Your task to perform on an android device: Find coffee shops on Maps Image 0: 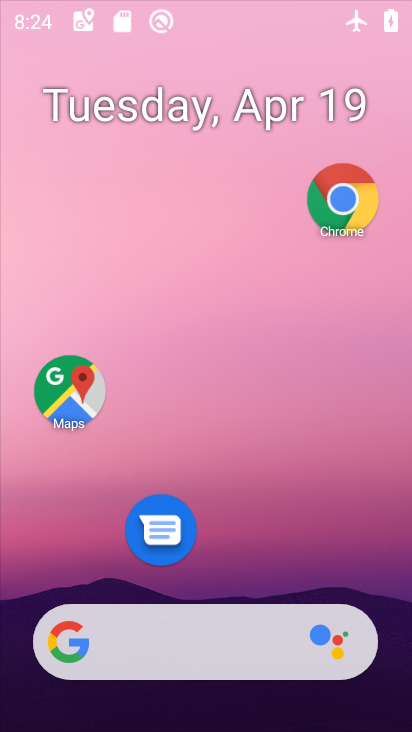
Step 0: click (410, 380)
Your task to perform on an android device: Find coffee shops on Maps Image 1: 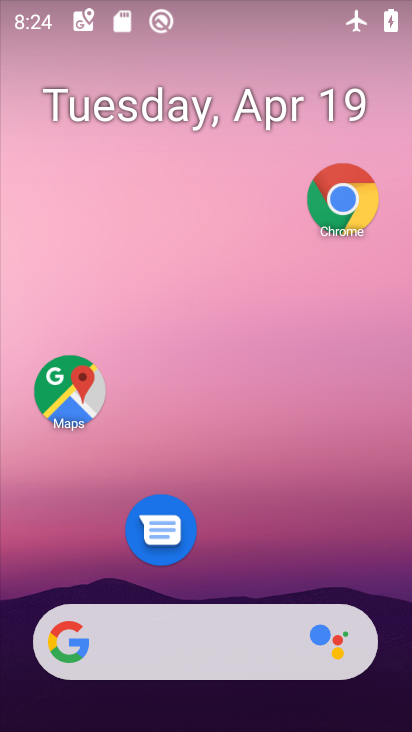
Step 1: drag from (194, 569) to (276, 59)
Your task to perform on an android device: Find coffee shops on Maps Image 2: 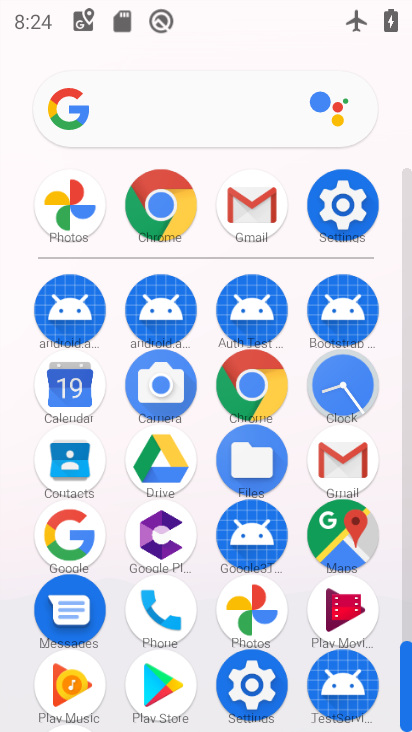
Step 2: click (339, 532)
Your task to perform on an android device: Find coffee shops on Maps Image 3: 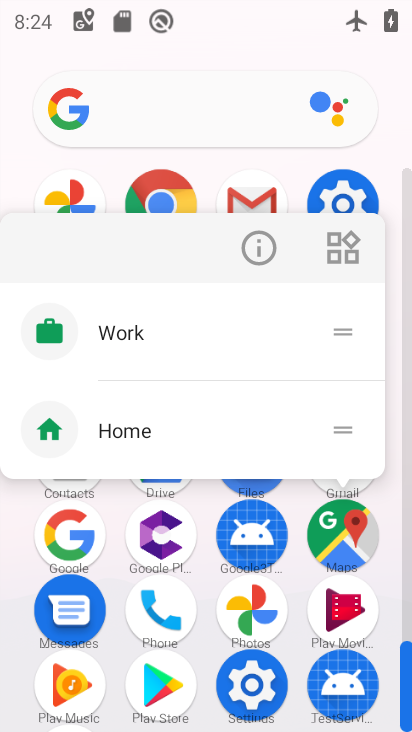
Step 3: click (261, 243)
Your task to perform on an android device: Find coffee shops on Maps Image 4: 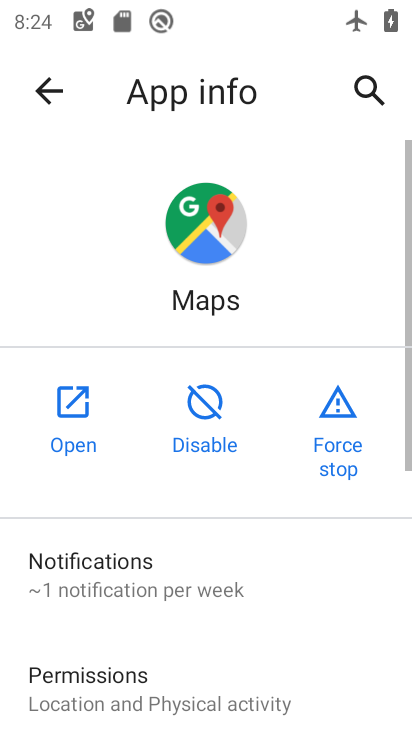
Step 4: click (74, 393)
Your task to perform on an android device: Find coffee shops on Maps Image 5: 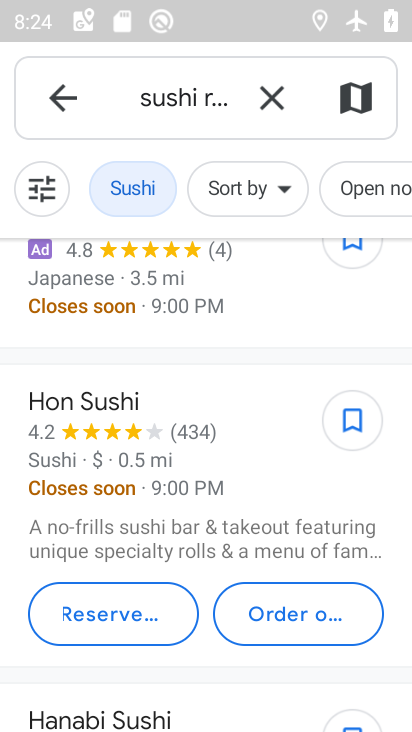
Step 5: drag from (218, 532) to (234, 237)
Your task to perform on an android device: Find coffee shops on Maps Image 6: 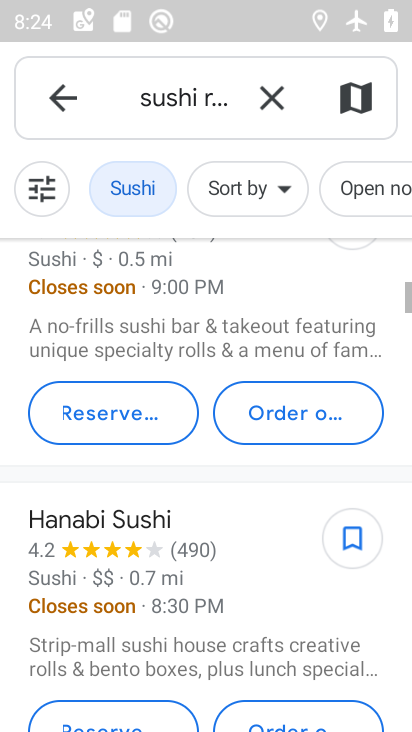
Step 6: drag from (205, 482) to (237, 273)
Your task to perform on an android device: Find coffee shops on Maps Image 7: 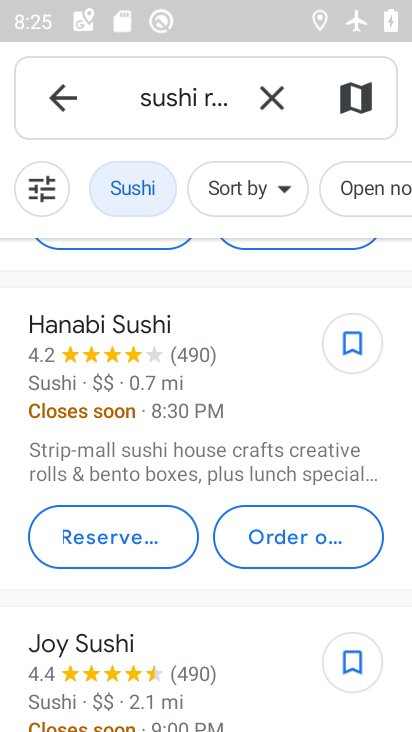
Step 7: drag from (216, 264) to (292, 725)
Your task to perform on an android device: Find coffee shops on Maps Image 8: 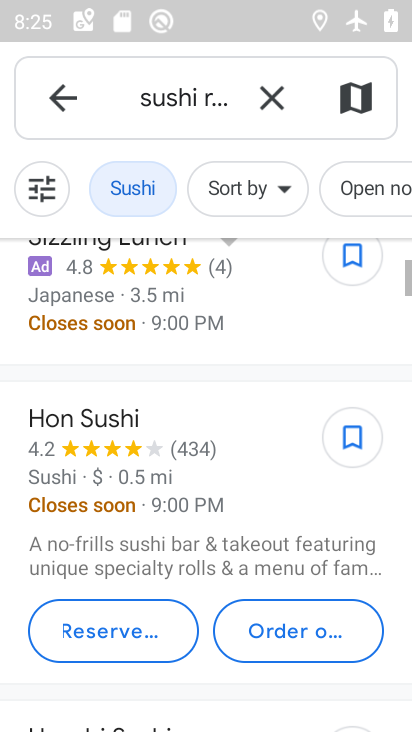
Step 8: click (270, 93)
Your task to perform on an android device: Find coffee shops on Maps Image 9: 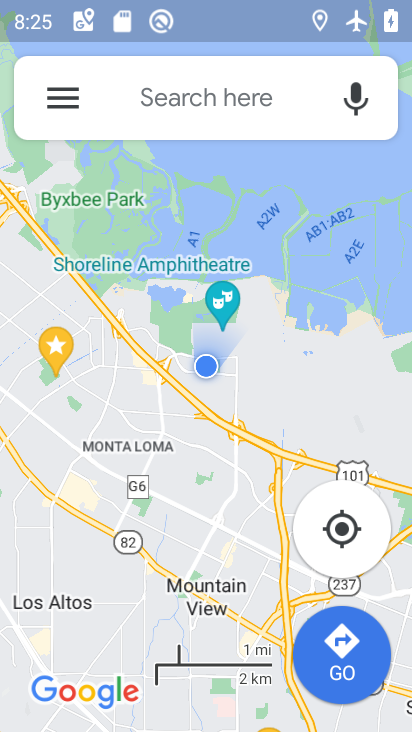
Step 9: click (131, 96)
Your task to perform on an android device: Find coffee shops on Maps Image 10: 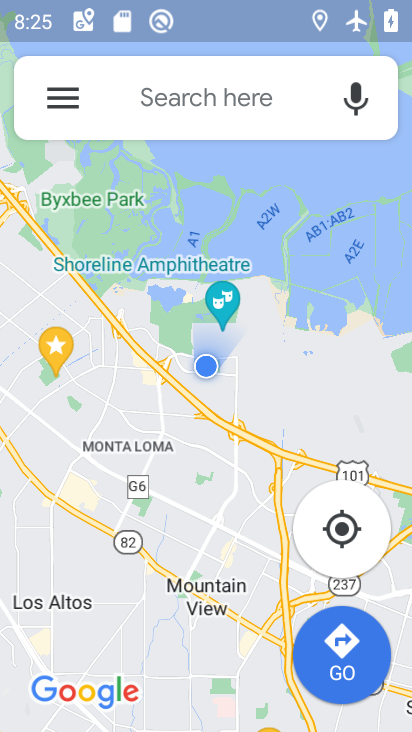
Step 10: click (160, 100)
Your task to perform on an android device: Find coffee shops on Maps Image 11: 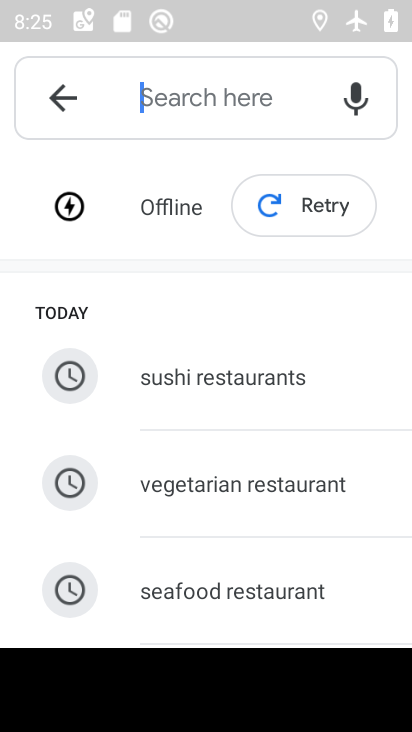
Step 11: drag from (198, 524) to (266, 123)
Your task to perform on an android device: Find coffee shops on Maps Image 12: 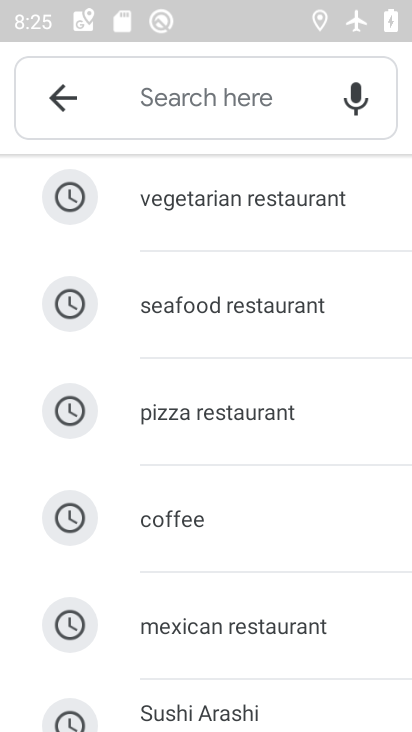
Step 12: click (177, 517)
Your task to perform on an android device: Find coffee shops on Maps Image 13: 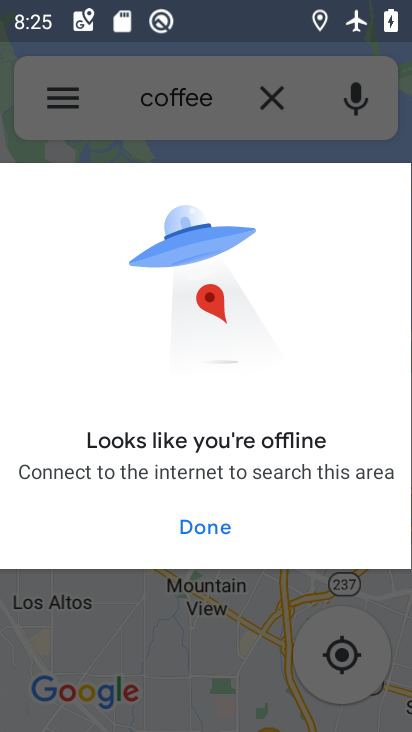
Step 13: click (201, 519)
Your task to perform on an android device: Find coffee shops on Maps Image 14: 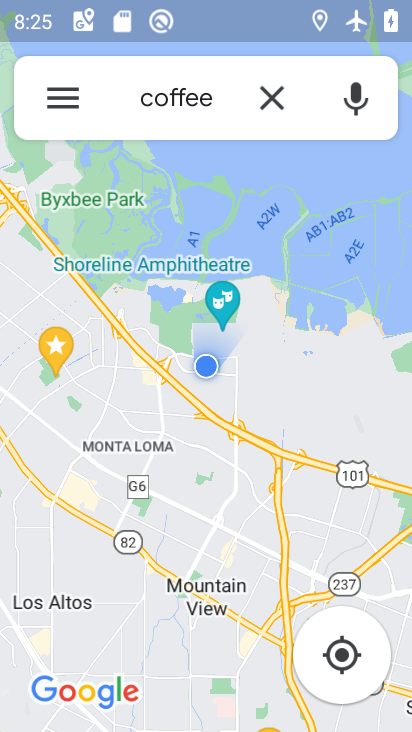
Step 14: task complete